Your task to perform on an android device: Add "dell alienware" to the cart on target Image 0: 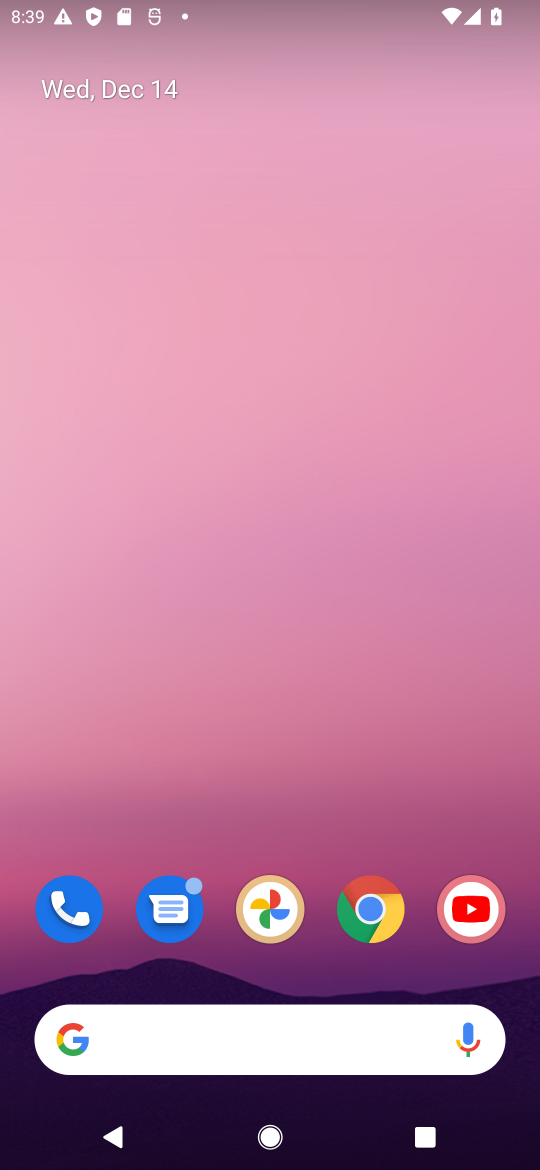
Step 0: click (383, 929)
Your task to perform on an android device: Add "dell alienware" to the cart on target Image 1: 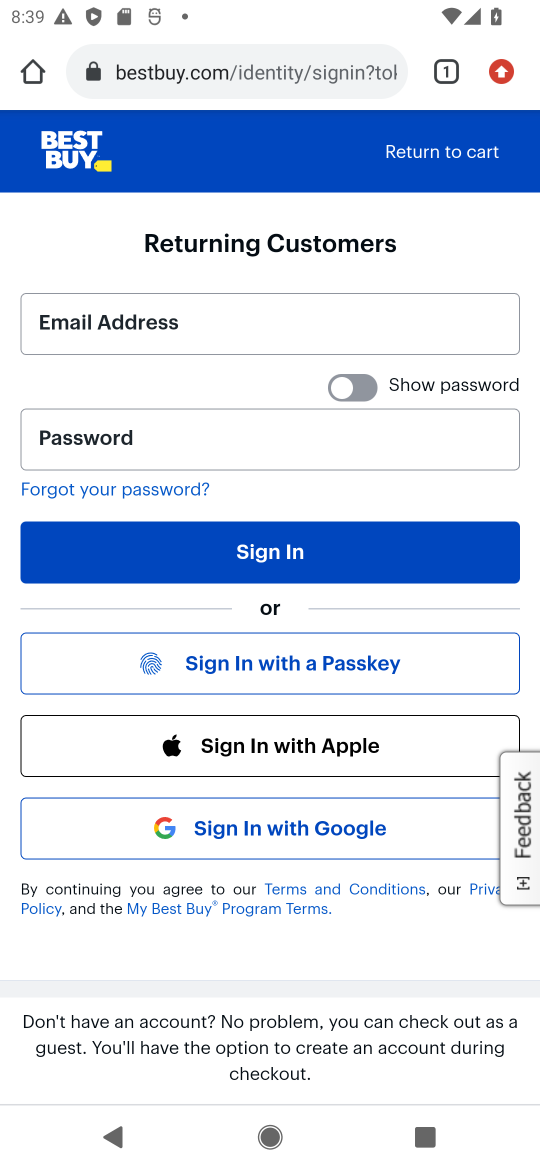
Step 1: click (272, 70)
Your task to perform on an android device: Add "dell alienware" to the cart on target Image 2: 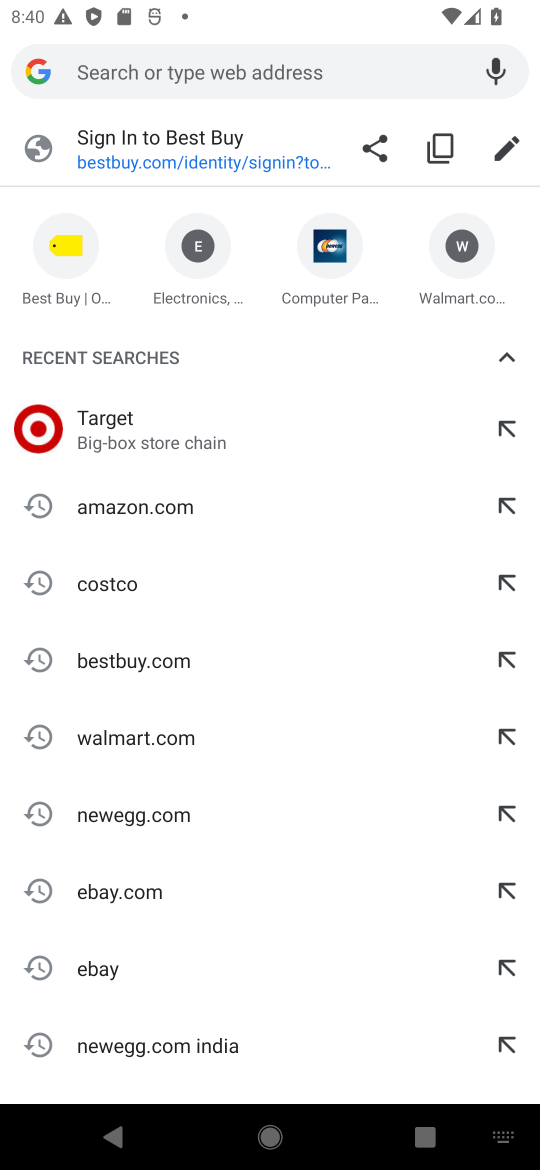
Step 2: type "target"
Your task to perform on an android device: Add "dell alienware" to the cart on target Image 3: 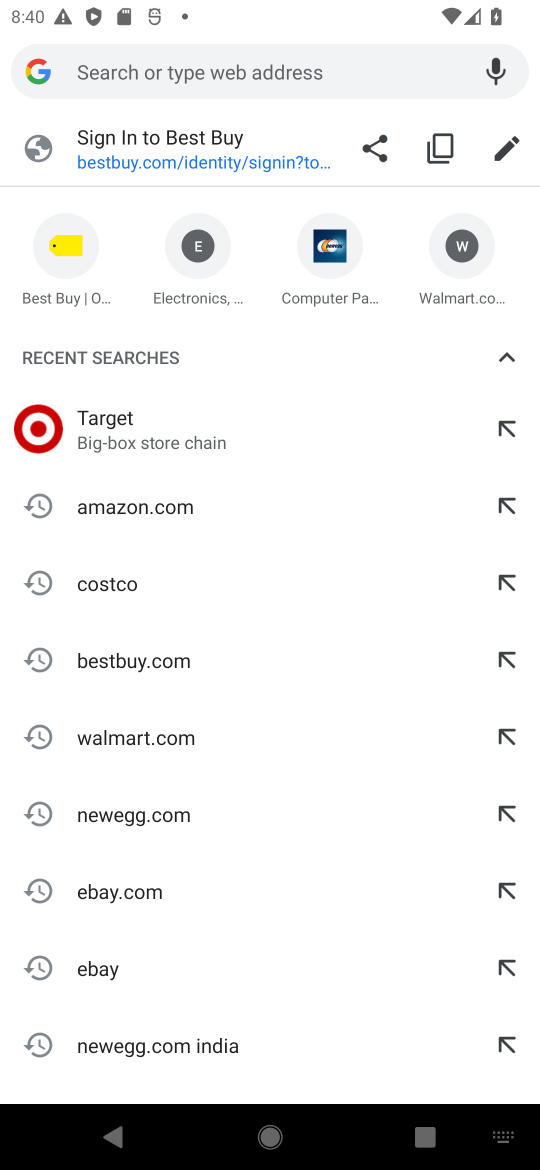
Step 3: click (143, 444)
Your task to perform on an android device: Add "dell alienware" to the cart on target Image 4: 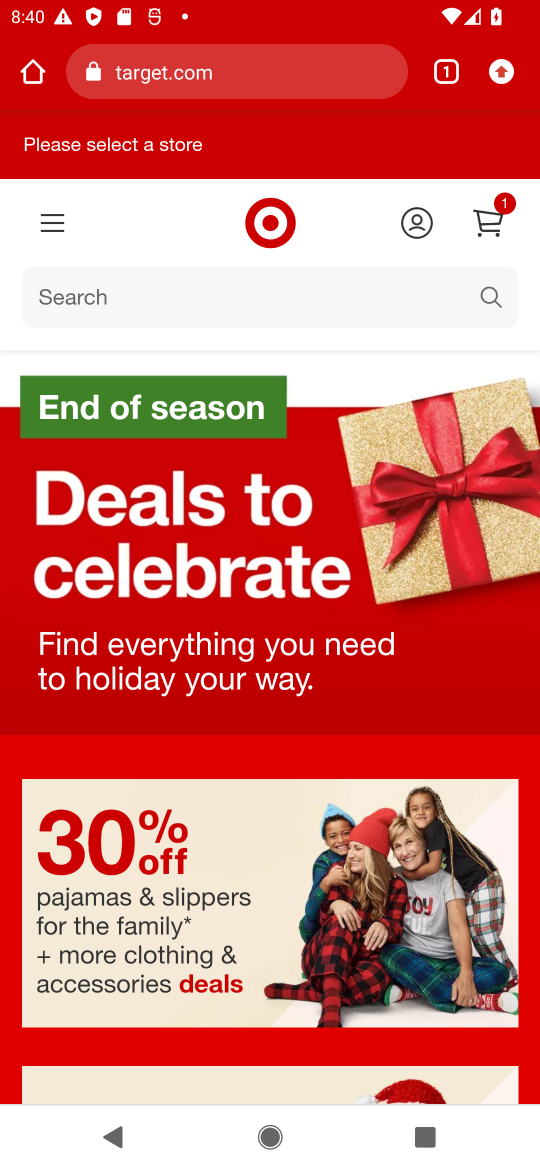
Step 4: click (303, 304)
Your task to perform on an android device: Add "dell alienware" to the cart on target Image 5: 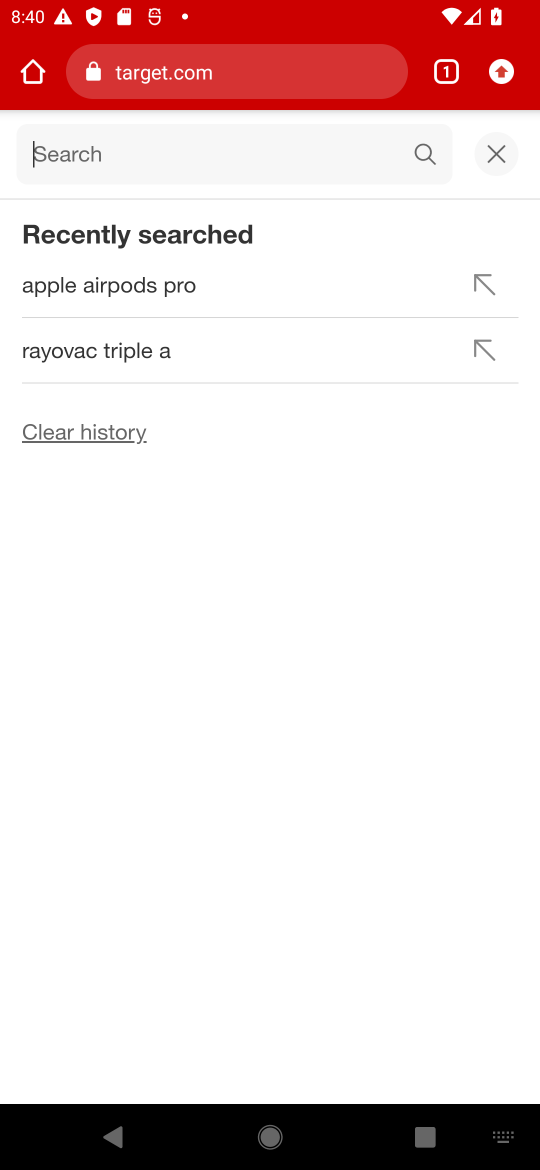
Step 5: type "dell alienware"
Your task to perform on an android device: Add "dell alienware" to the cart on target Image 6: 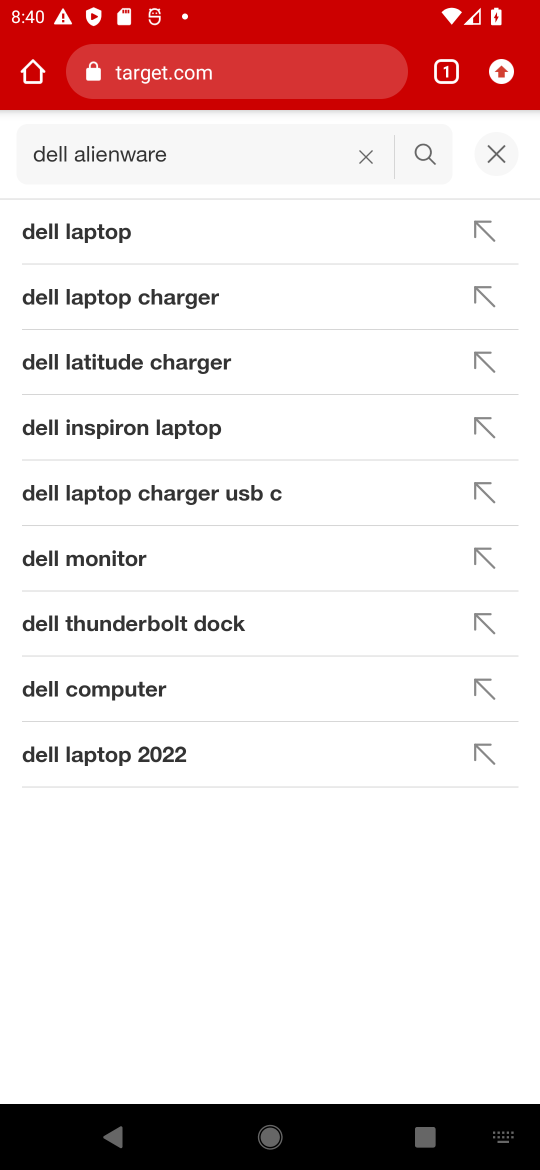
Step 6: press enter
Your task to perform on an android device: Add "dell alienware" to the cart on target Image 7: 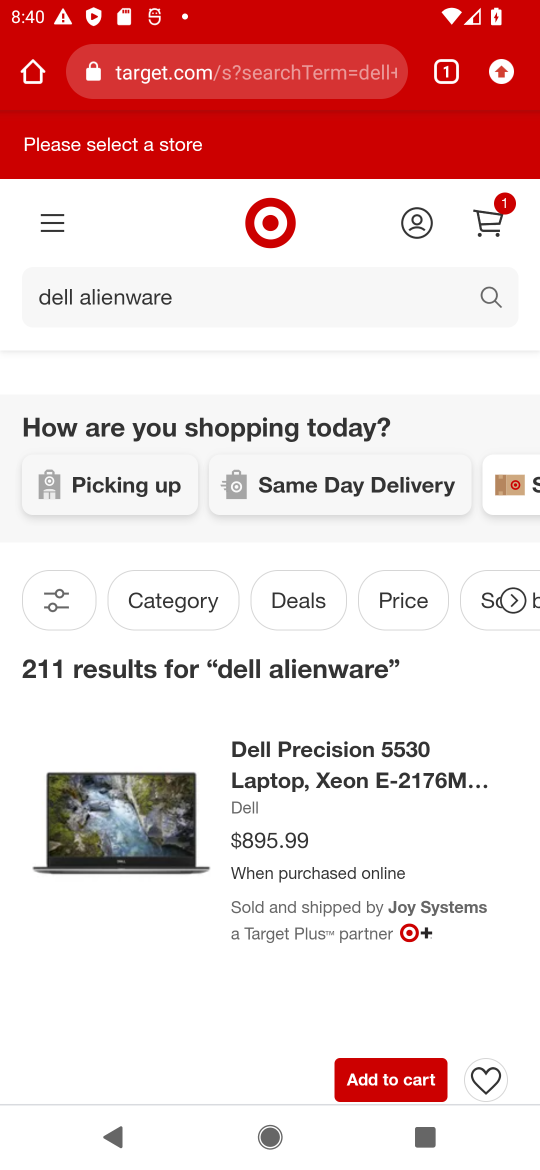
Step 7: task complete